Your task to perform on an android device: What's the weather? Image 0: 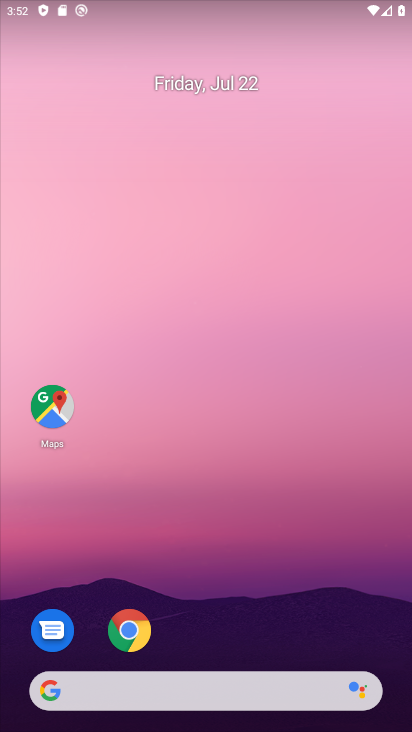
Step 0: drag from (255, 606) to (278, 203)
Your task to perform on an android device: What's the weather? Image 1: 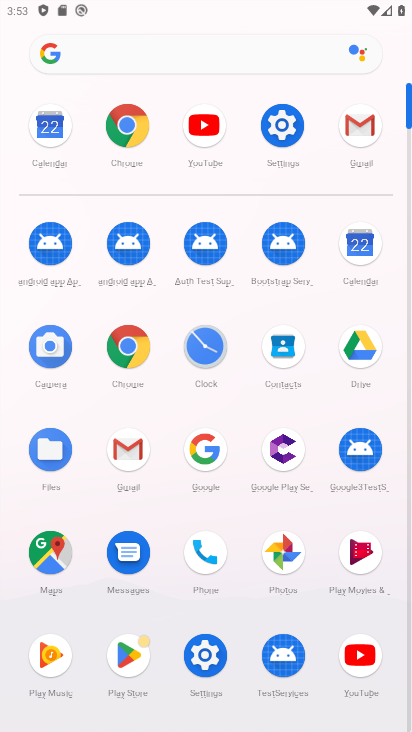
Step 1: click (197, 64)
Your task to perform on an android device: What's the weather? Image 2: 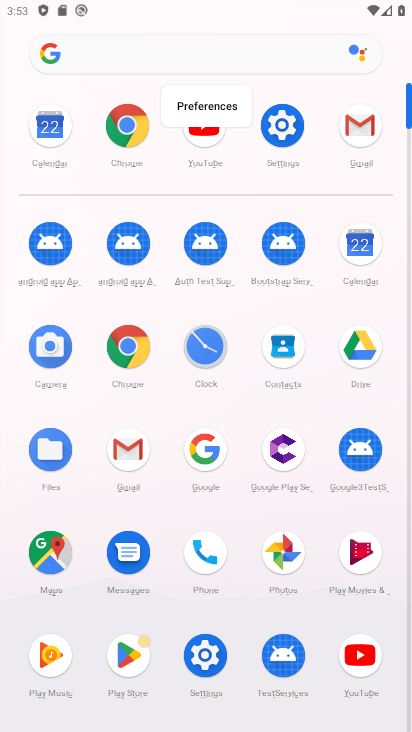
Step 2: click (126, 53)
Your task to perform on an android device: What's the weather? Image 3: 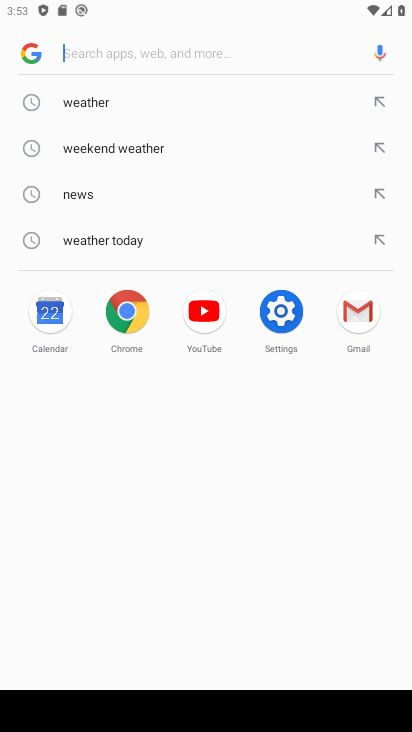
Step 3: type "weather"
Your task to perform on an android device: What's the weather? Image 4: 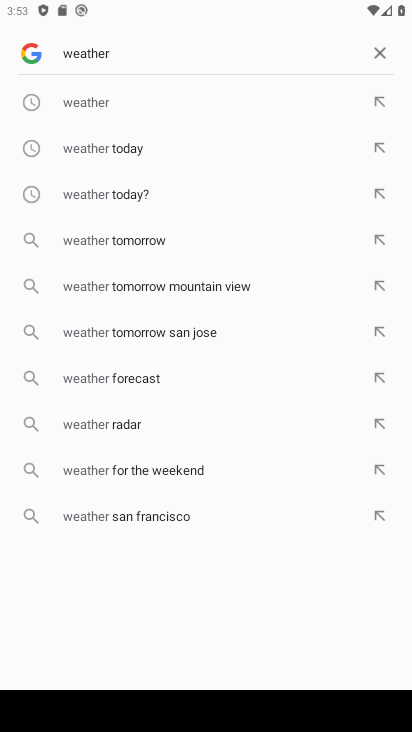
Step 4: click (69, 110)
Your task to perform on an android device: What's the weather? Image 5: 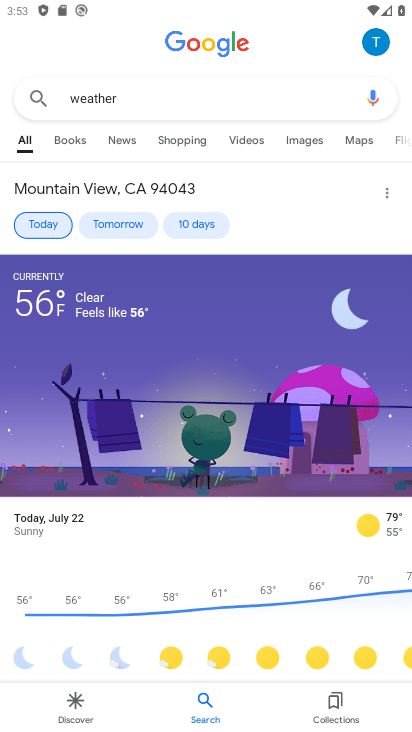
Step 5: task complete